Your task to perform on an android device: toggle show notifications on the lock screen Image 0: 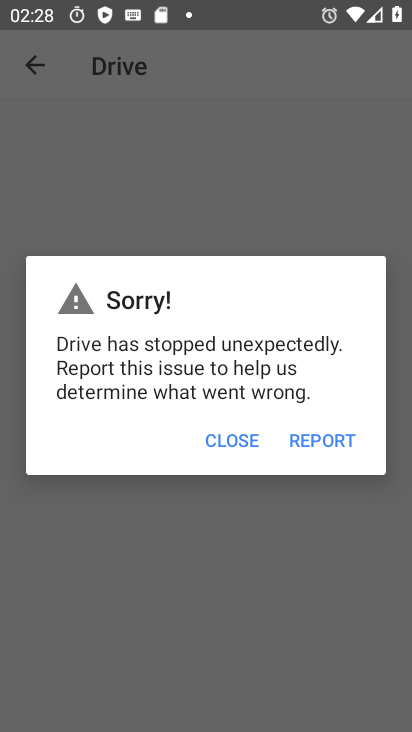
Step 0: press home button
Your task to perform on an android device: toggle show notifications on the lock screen Image 1: 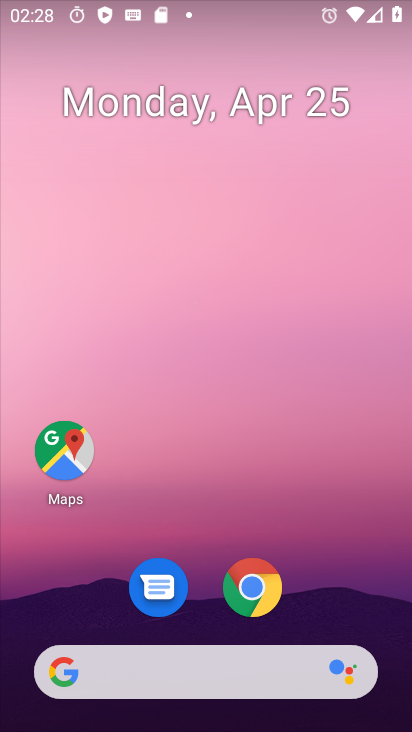
Step 1: drag from (315, 414) to (285, 43)
Your task to perform on an android device: toggle show notifications on the lock screen Image 2: 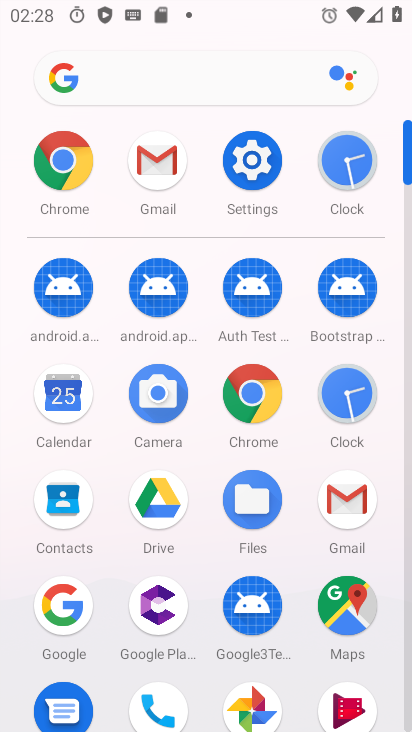
Step 2: click (267, 163)
Your task to perform on an android device: toggle show notifications on the lock screen Image 3: 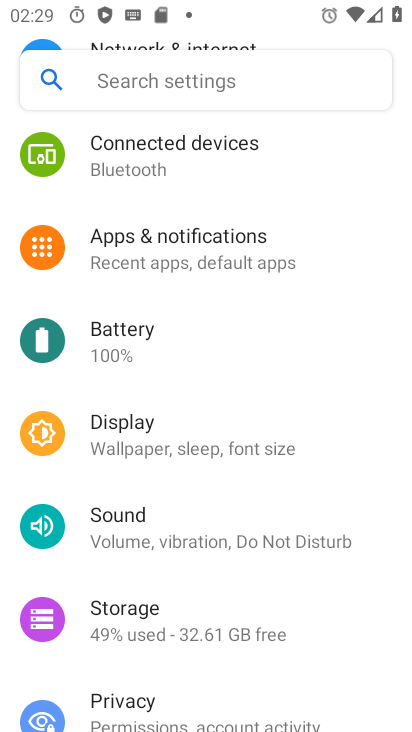
Step 3: drag from (201, 627) to (264, 233)
Your task to perform on an android device: toggle show notifications on the lock screen Image 4: 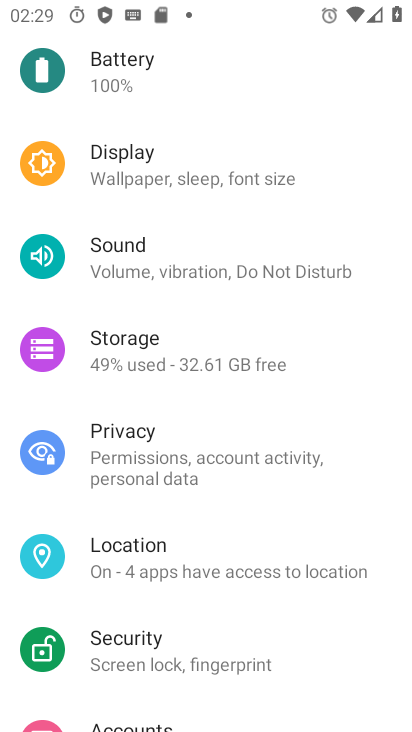
Step 4: drag from (258, 225) to (221, 714)
Your task to perform on an android device: toggle show notifications on the lock screen Image 5: 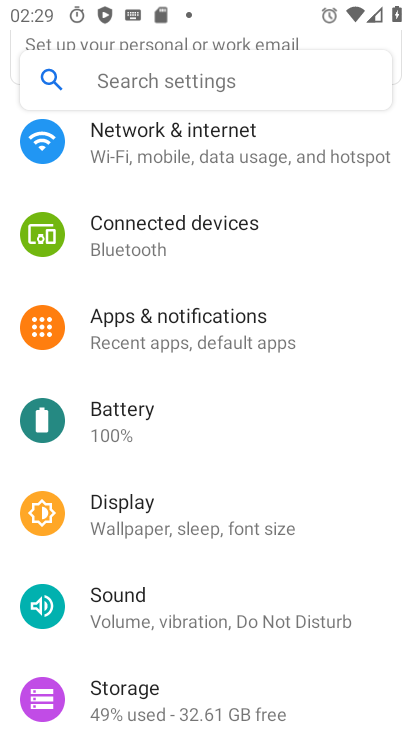
Step 5: click (206, 327)
Your task to perform on an android device: toggle show notifications on the lock screen Image 6: 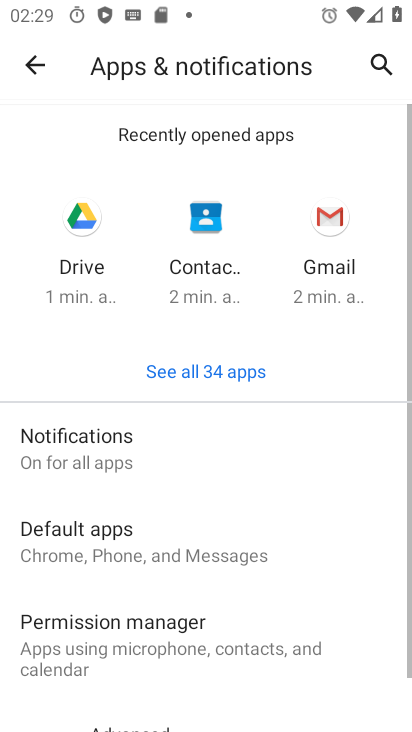
Step 6: click (130, 446)
Your task to perform on an android device: toggle show notifications on the lock screen Image 7: 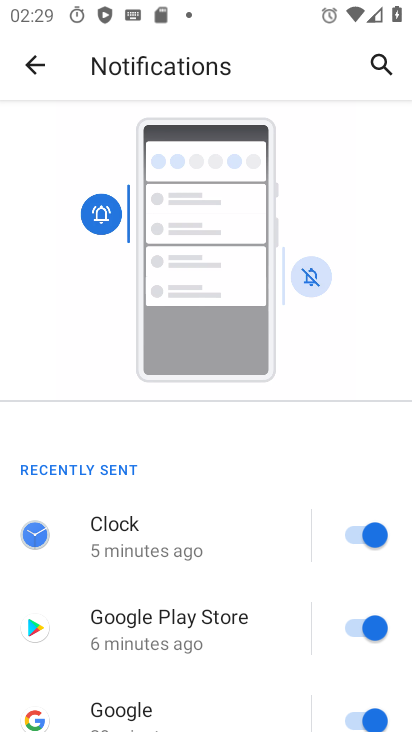
Step 7: drag from (246, 664) to (269, 259)
Your task to perform on an android device: toggle show notifications on the lock screen Image 8: 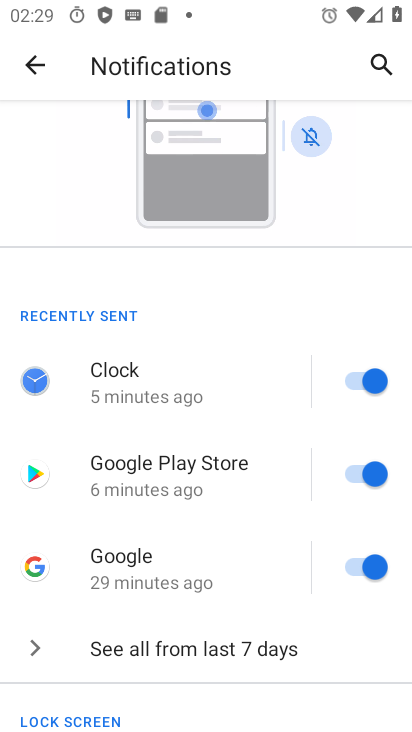
Step 8: drag from (235, 596) to (258, 268)
Your task to perform on an android device: toggle show notifications on the lock screen Image 9: 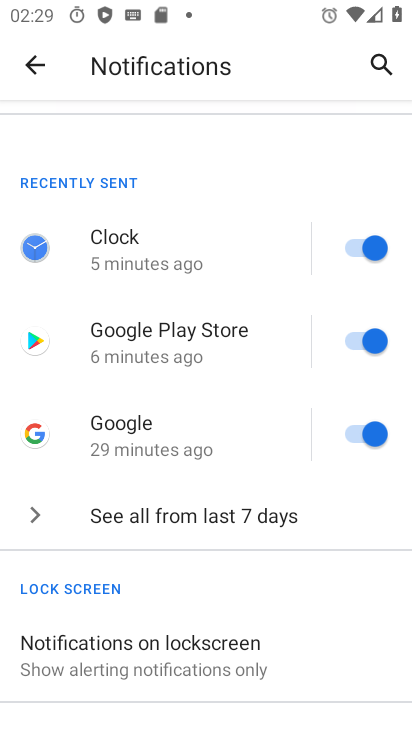
Step 9: drag from (206, 662) to (251, 276)
Your task to perform on an android device: toggle show notifications on the lock screen Image 10: 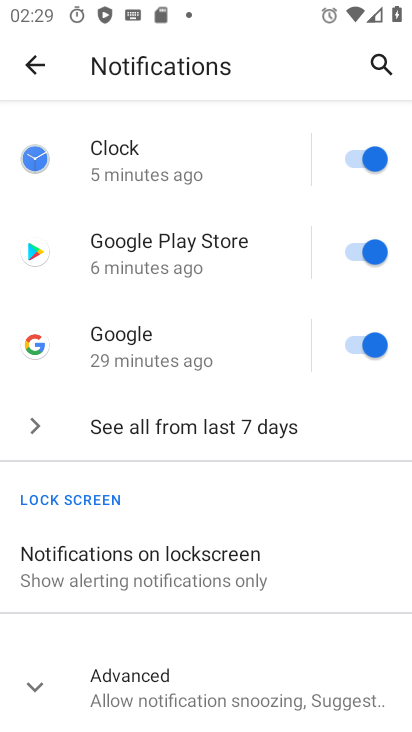
Step 10: click (186, 573)
Your task to perform on an android device: toggle show notifications on the lock screen Image 11: 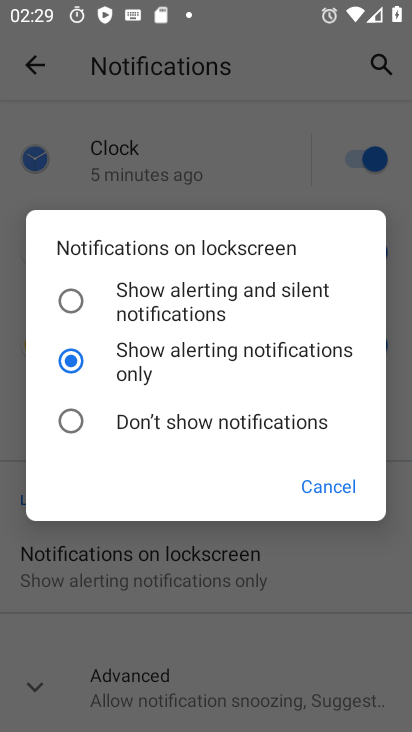
Step 11: click (220, 303)
Your task to perform on an android device: toggle show notifications on the lock screen Image 12: 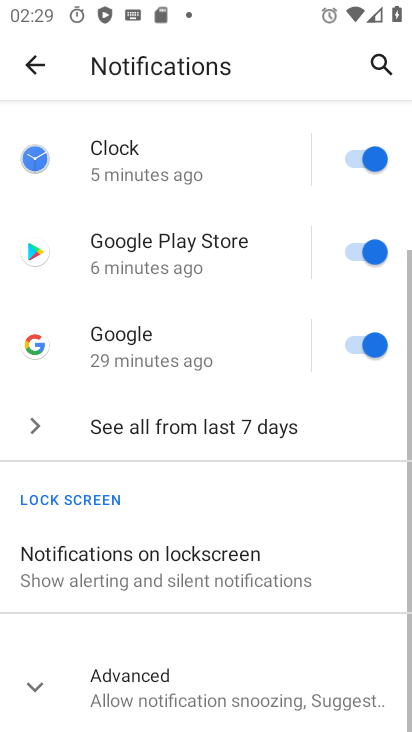
Step 12: task complete